Your task to perform on an android device: move a message to another label in the gmail app Image 0: 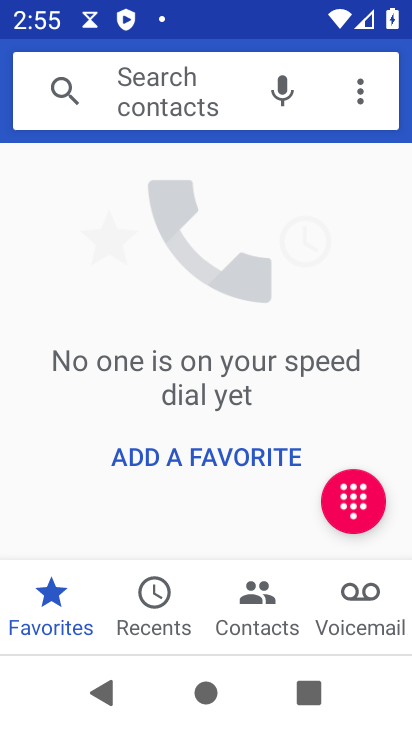
Step 0: press back button
Your task to perform on an android device: move a message to another label in the gmail app Image 1: 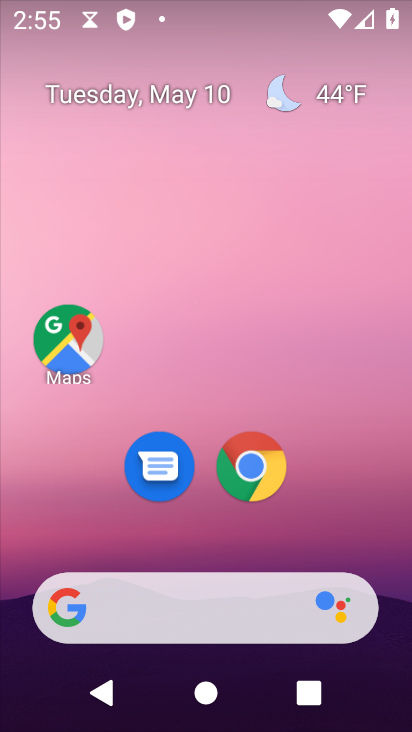
Step 1: drag from (279, 227) to (226, 29)
Your task to perform on an android device: move a message to another label in the gmail app Image 2: 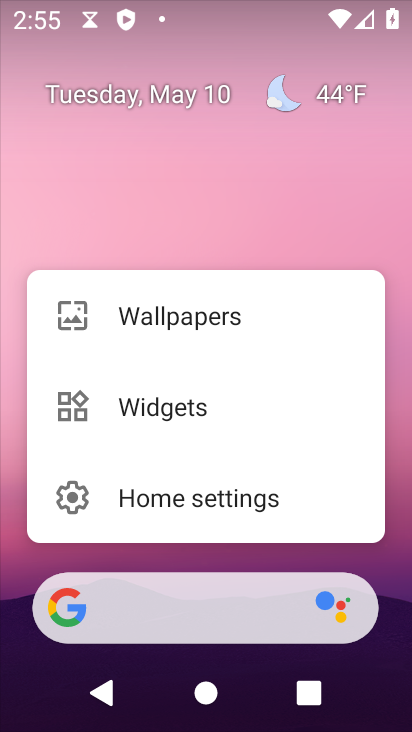
Step 2: click (232, 155)
Your task to perform on an android device: move a message to another label in the gmail app Image 3: 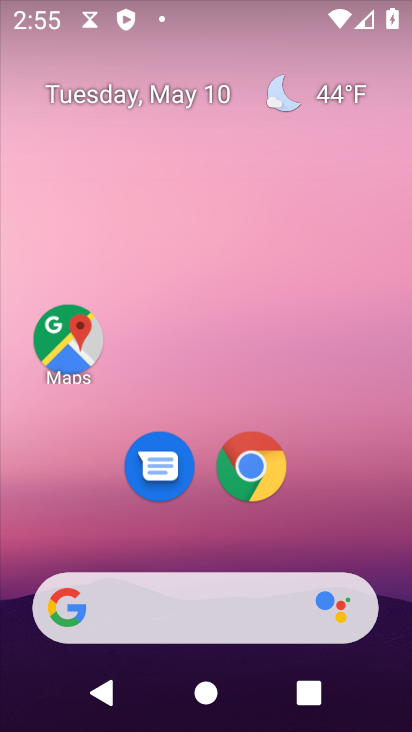
Step 3: drag from (309, 521) to (255, 32)
Your task to perform on an android device: move a message to another label in the gmail app Image 4: 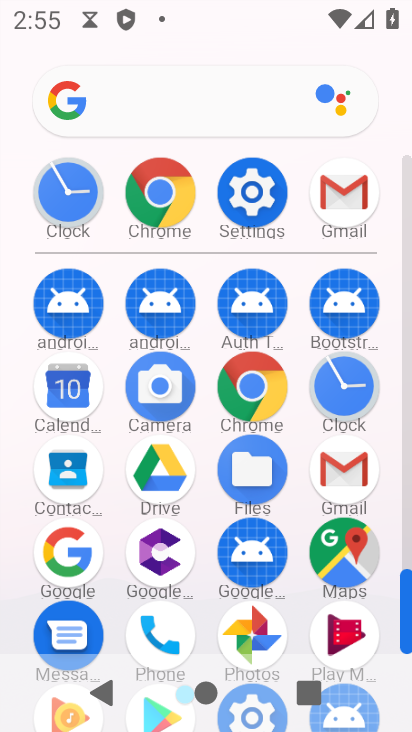
Step 4: click (344, 199)
Your task to perform on an android device: move a message to another label in the gmail app Image 5: 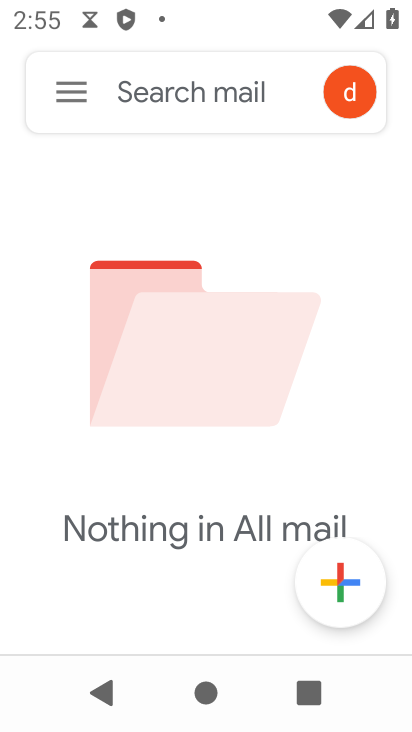
Step 5: click (71, 92)
Your task to perform on an android device: move a message to another label in the gmail app Image 6: 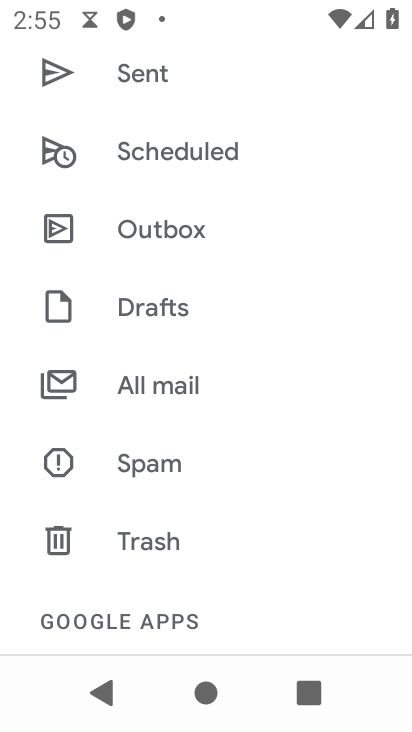
Step 6: drag from (165, 172) to (193, 316)
Your task to perform on an android device: move a message to another label in the gmail app Image 7: 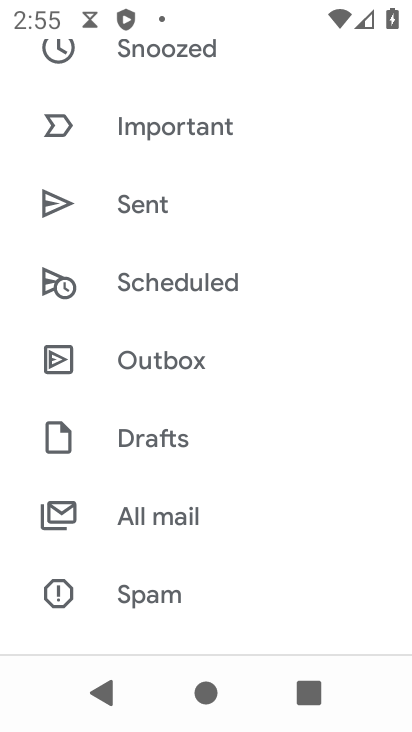
Step 7: drag from (216, 190) to (235, 298)
Your task to perform on an android device: move a message to another label in the gmail app Image 8: 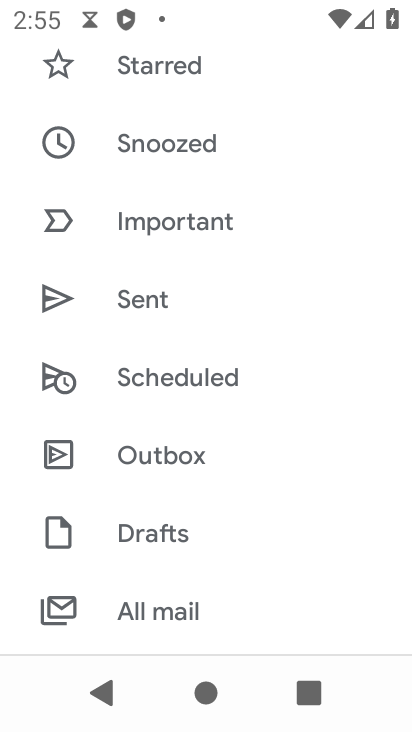
Step 8: drag from (227, 235) to (217, 410)
Your task to perform on an android device: move a message to another label in the gmail app Image 9: 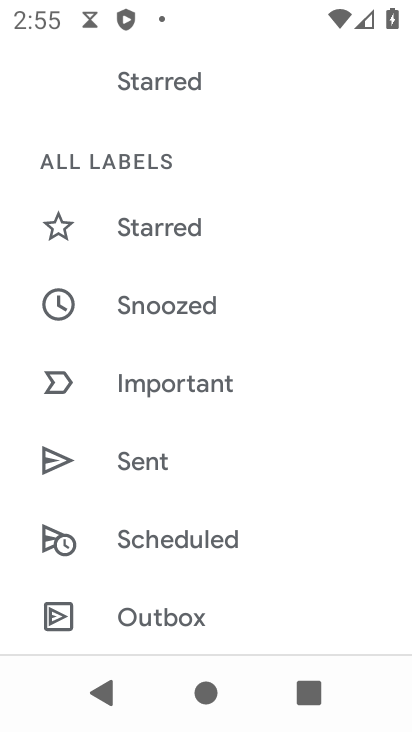
Step 9: drag from (208, 171) to (233, 295)
Your task to perform on an android device: move a message to another label in the gmail app Image 10: 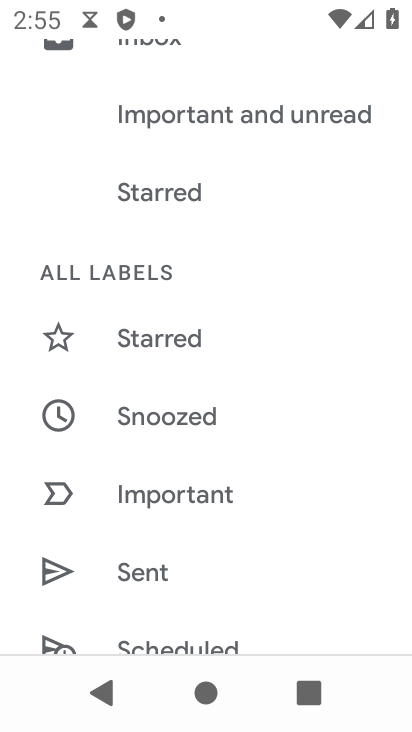
Step 10: click (188, 112)
Your task to perform on an android device: move a message to another label in the gmail app Image 11: 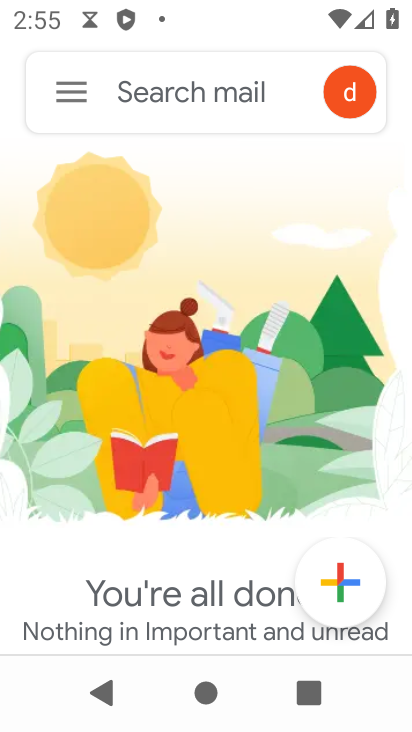
Step 11: click (75, 86)
Your task to perform on an android device: move a message to another label in the gmail app Image 12: 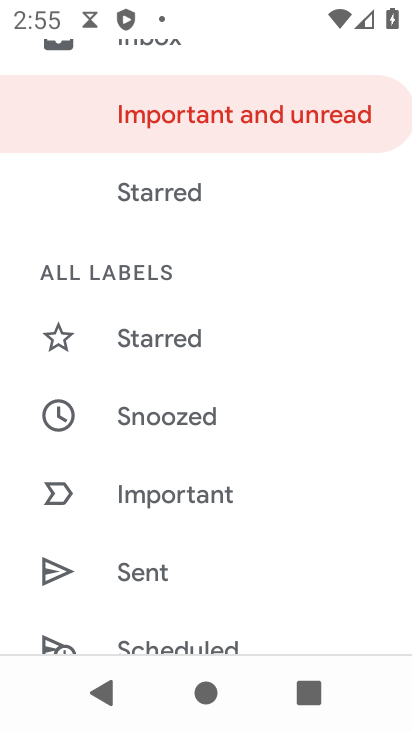
Step 12: drag from (285, 174) to (313, 363)
Your task to perform on an android device: move a message to another label in the gmail app Image 13: 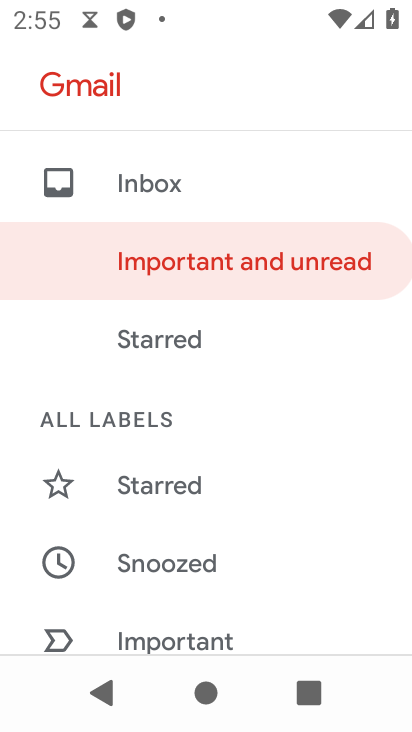
Step 13: click (155, 181)
Your task to perform on an android device: move a message to another label in the gmail app Image 14: 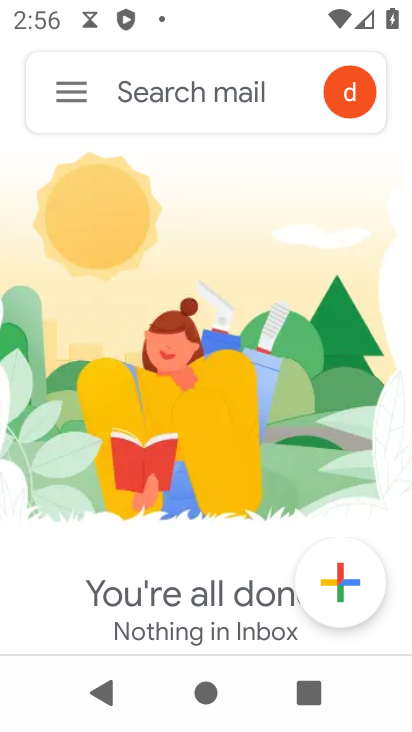
Step 14: click (69, 102)
Your task to perform on an android device: move a message to another label in the gmail app Image 15: 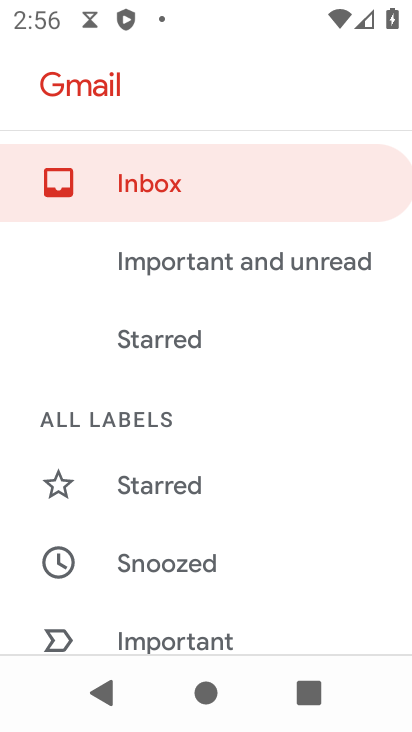
Step 15: drag from (177, 469) to (196, 202)
Your task to perform on an android device: move a message to another label in the gmail app Image 16: 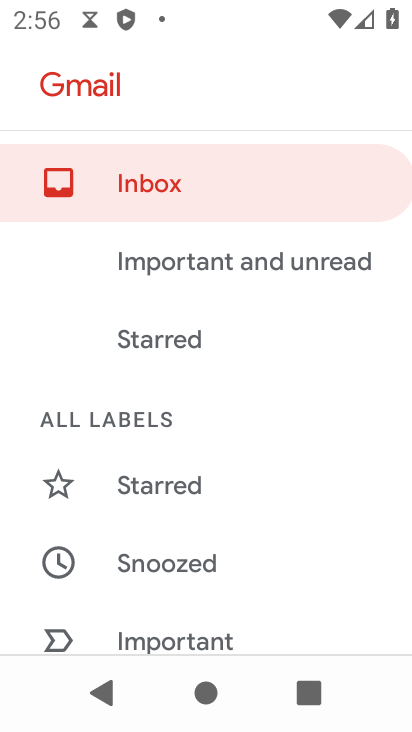
Step 16: drag from (196, 605) to (235, 314)
Your task to perform on an android device: move a message to another label in the gmail app Image 17: 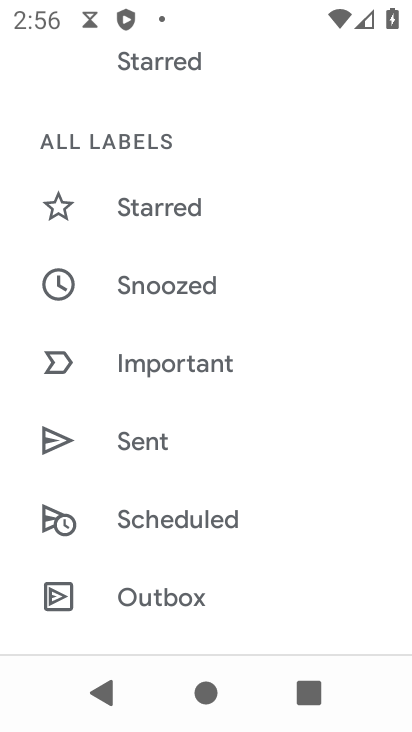
Step 17: drag from (203, 566) to (271, 356)
Your task to perform on an android device: move a message to another label in the gmail app Image 18: 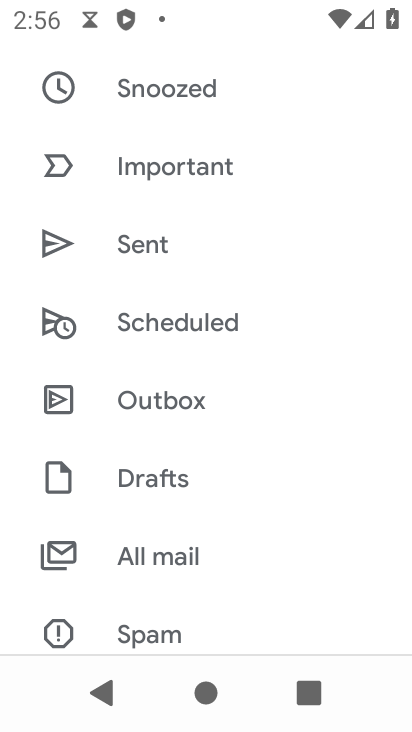
Step 18: click (169, 562)
Your task to perform on an android device: move a message to another label in the gmail app Image 19: 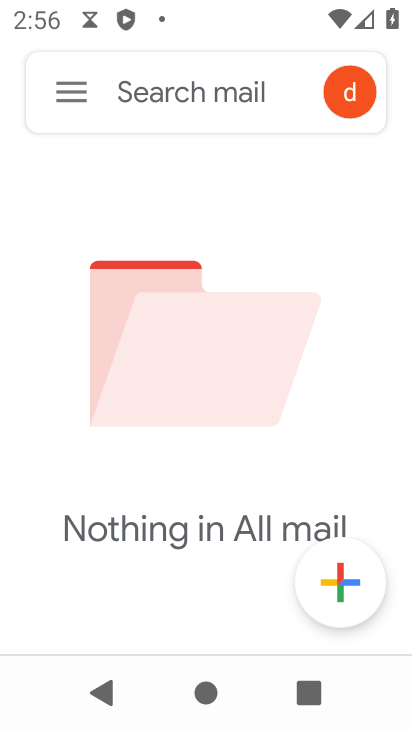
Step 19: task complete